Your task to perform on an android device: Open sound settings Image 0: 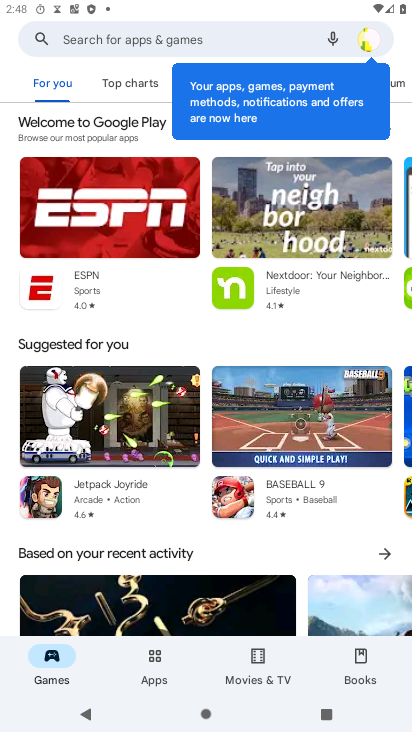
Step 0: press home button
Your task to perform on an android device: Open sound settings Image 1: 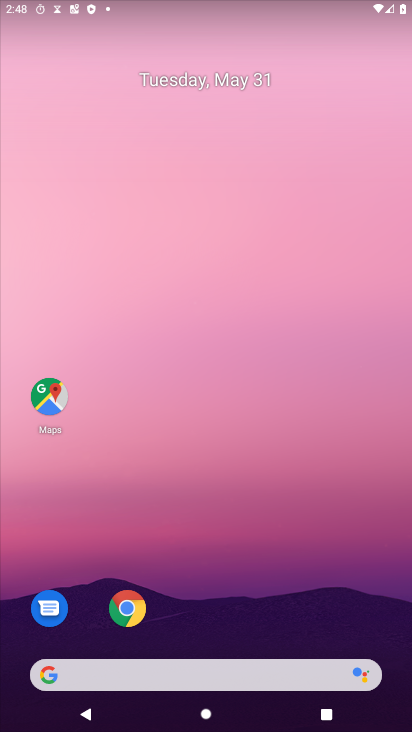
Step 1: drag from (233, 631) to (307, 57)
Your task to perform on an android device: Open sound settings Image 2: 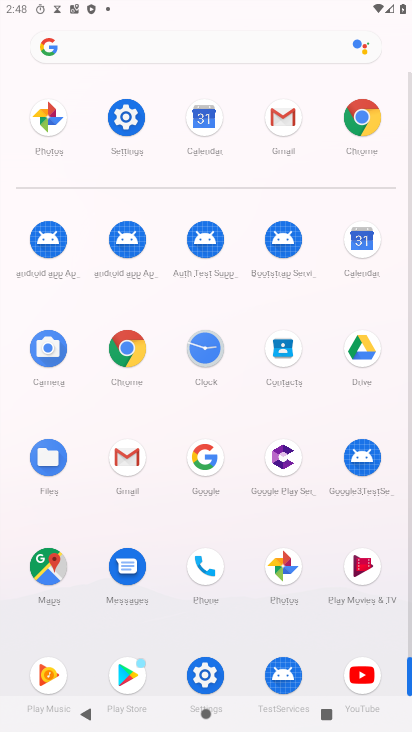
Step 2: click (128, 135)
Your task to perform on an android device: Open sound settings Image 3: 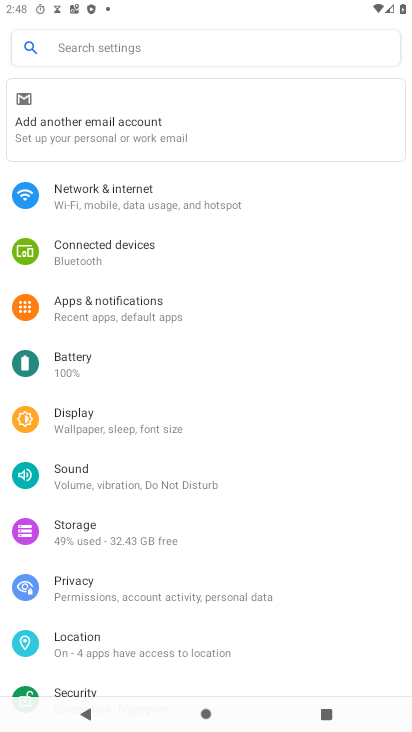
Step 3: click (108, 488)
Your task to perform on an android device: Open sound settings Image 4: 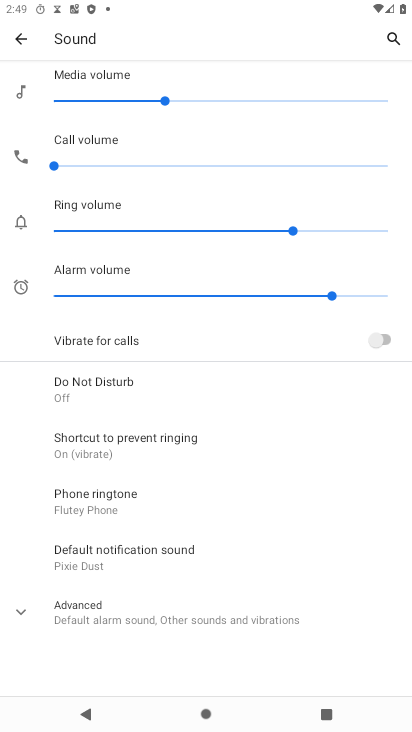
Step 4: task complete